Your task to perform on an android device: choose inbox layout in the gmail app Image 0: 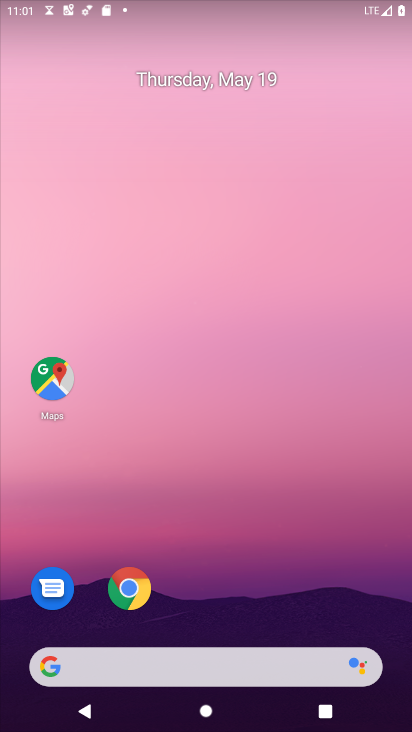
Step 0: drag from (282, 549) to (185, 21)
Your task to perform on an android device: choose inbox layout in the gmail app Image 1: 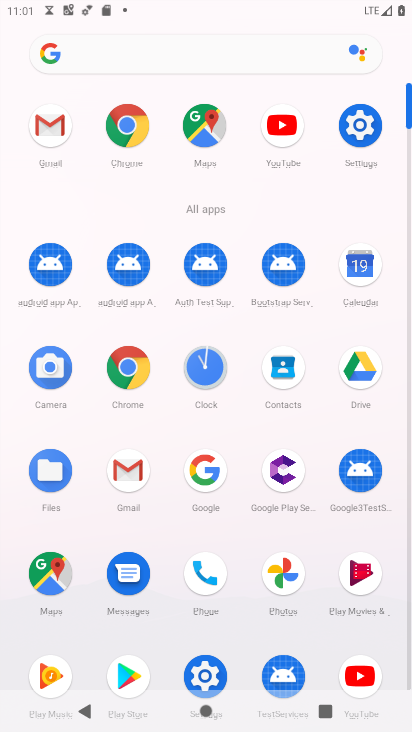
Step 1: click (119, 474)
Your task to perform on an android device: choose inbox layout in the gmail app Image 2: 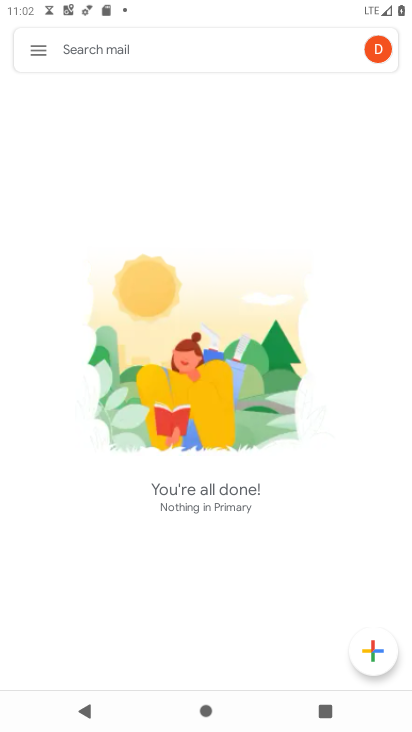
Step 2: click (33, 51)
Your task to perform on an android device: choose inbox layout in the gmail app Image 3: 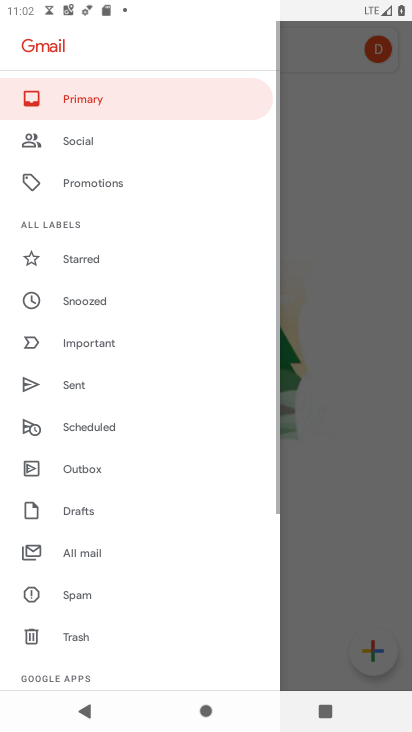
Step 3: drag from (166, 618) to (105, 76)
Your task to perform on an android device: choose inbox layout in the gmail app Image 4: 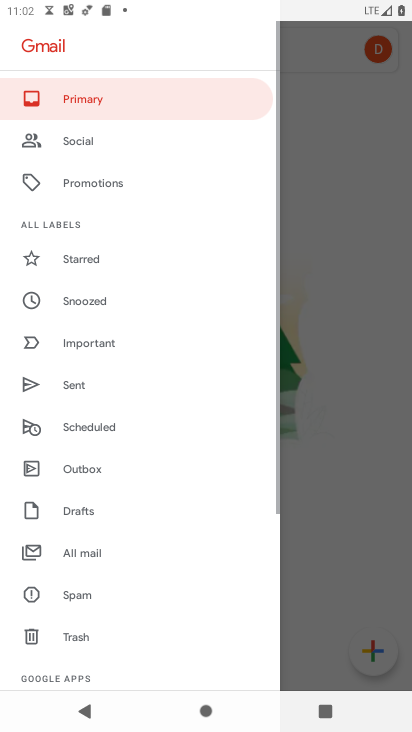
Step 4: drag from (116, 595) to (167, 93)
Your task to perform on an android device: choose inbox layout in the gmail app Image 5: 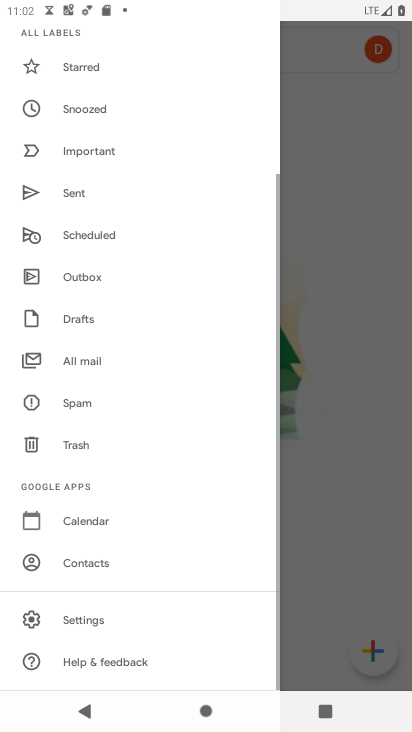
Step 5: click (110, 613)
Your task to perform on an android device: choose inbox layout in the gmail app Image 6: 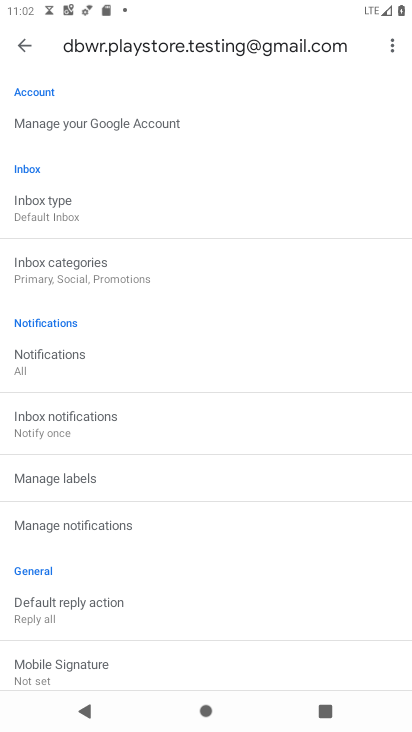
Step 6: click (144, 221)
Your task to perform on an android device: choose inbox layout in the gmail app Image 7: 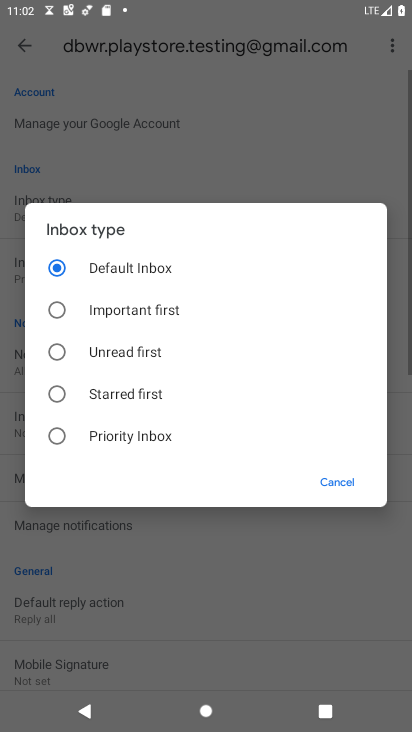
Step 7: click (161, 314)
Your task to perform on an android device: choose inbox layout in the gmail app Image 8: 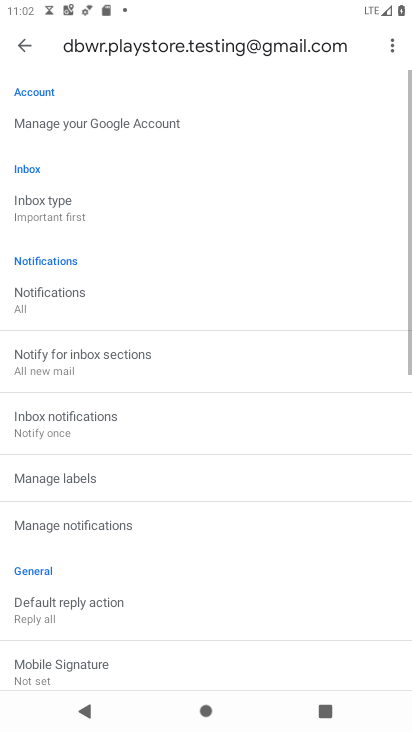
Step 8: task complete